Your task to perform on an android device: add a label to a message in the gmail app Image 0: 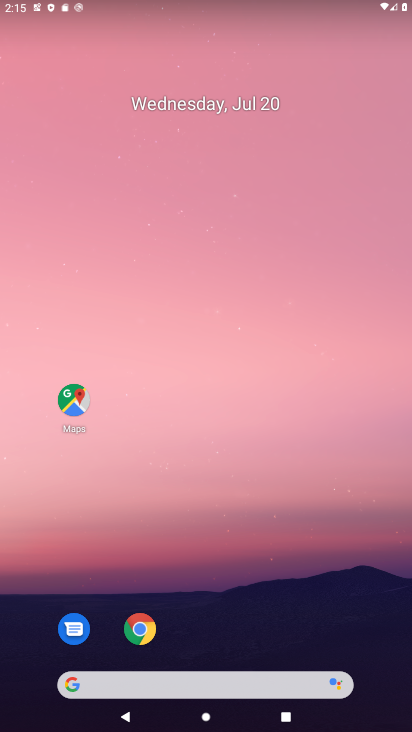
Step 0: drag from (207, 655) to (179, 210)
Your task to perform on an android device: add a label to a message in the gmail app Image 1: 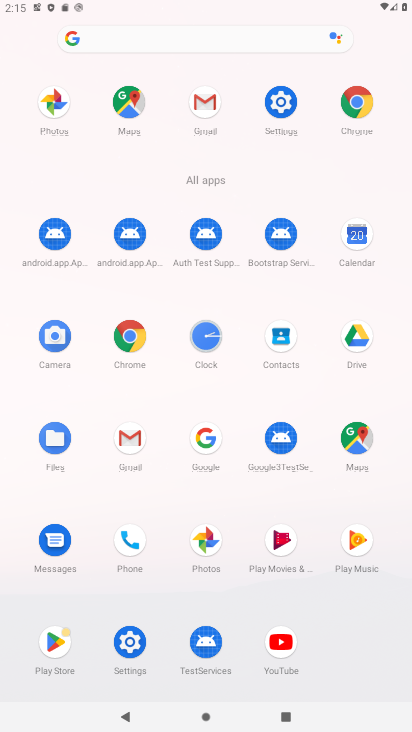
Step 1: click (137, 432)
Your task to perform on an android device: add a label to a message in the gmail app Image 2: 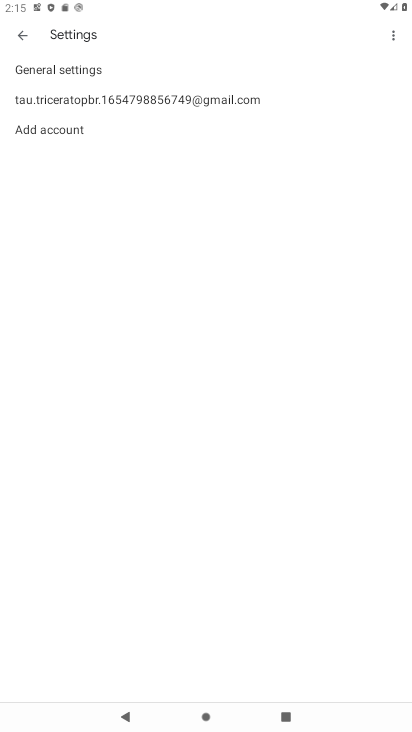
Step 2: click (25, 33)
Your task to perform on an android device: add a label to a message in the gmail app Image 3: 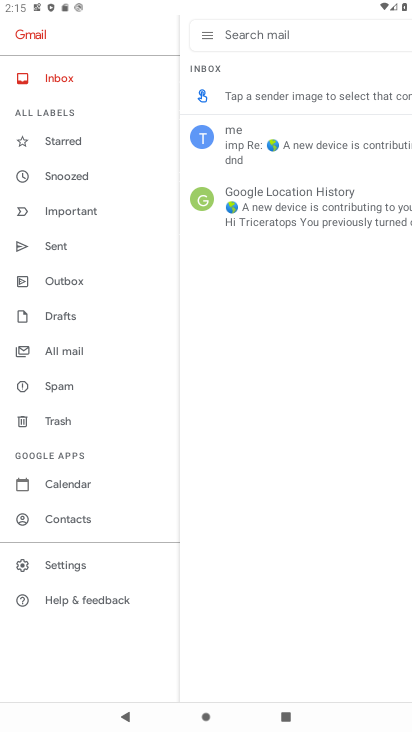
Step 3: click (203, 126)
Your task to perform on an android device: add a label to a message in the gmail app Image 4: 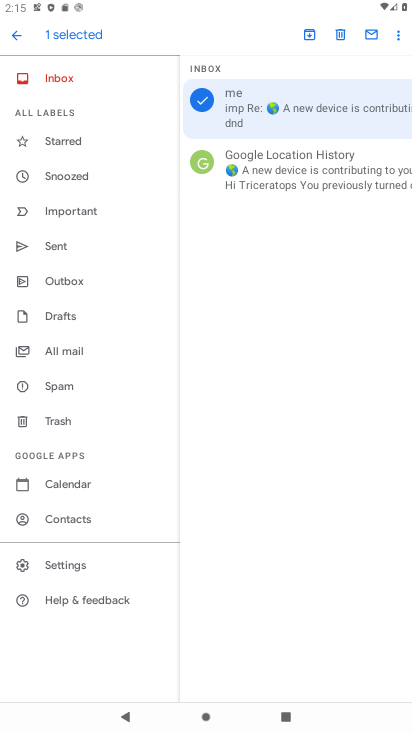
Step 4: click (396, 36)
Your task to perform on an android device: add a label to a message in the gmail app Image 5: 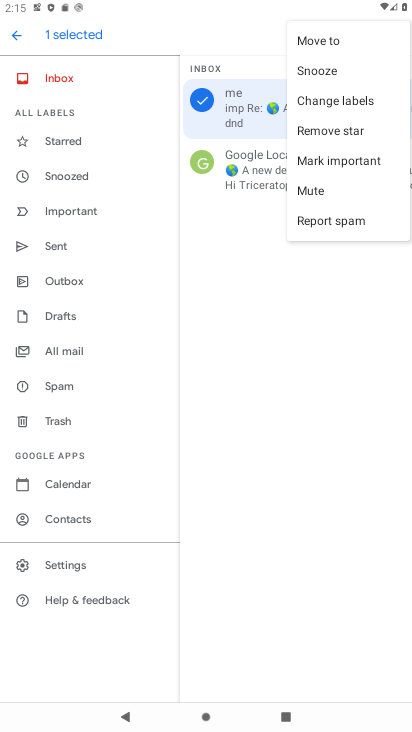
Step 5: click (332, 102)
Your task to perform on an android device: add a label to a message in the gmail app Image 6: 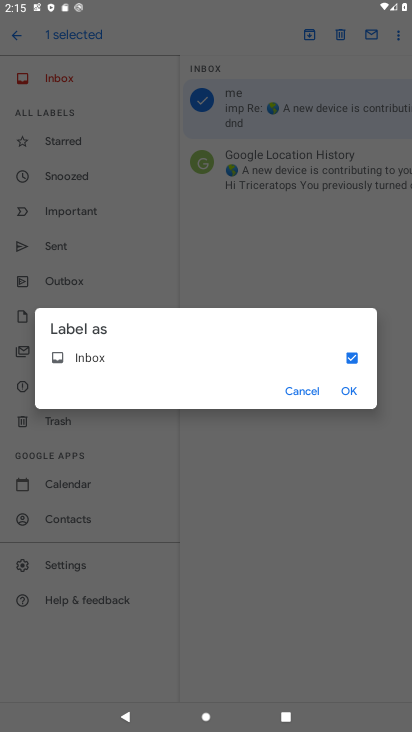
Step 6: click (352, 390)
Your task to perform on an android device: add a label to a message in the gmail app Image 7: 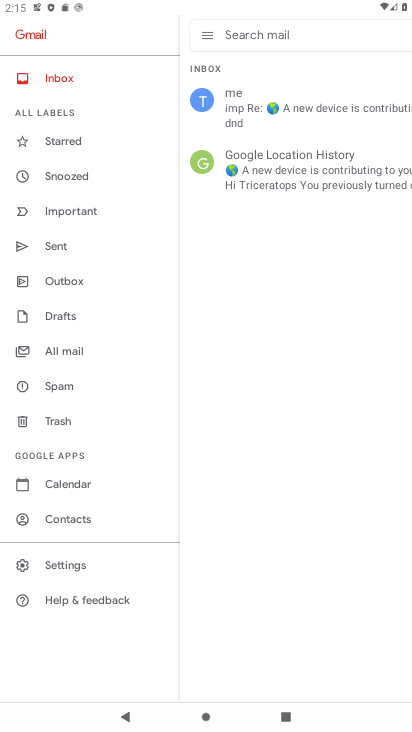
Step 7: task complete